Your task to perform on an android device: Do I have any events this weekend? Image 0: 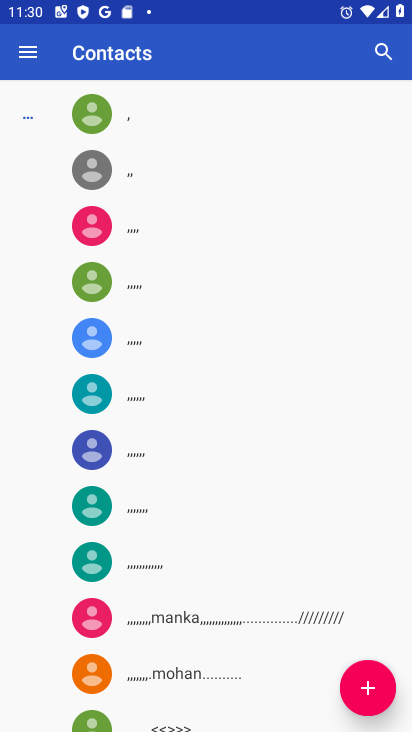
Step 0: press home button
Your task to perform on an android device: Do I have any events this weekend? Image 1: 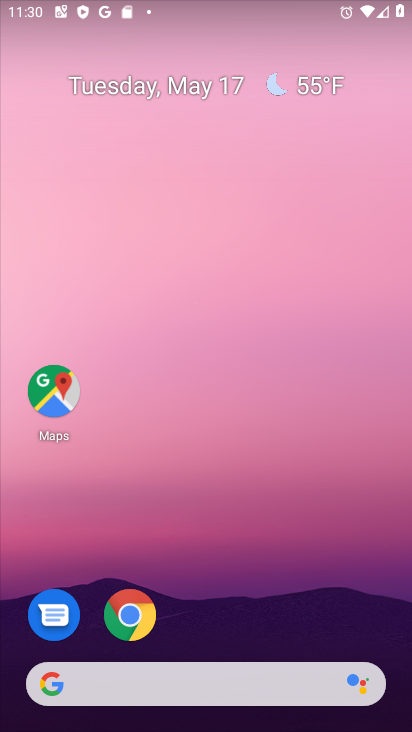
Step 1: drag from (287, 430) to (334, 0)
Your task to perform on an android device: Do I have any events this weekend? Image 2: 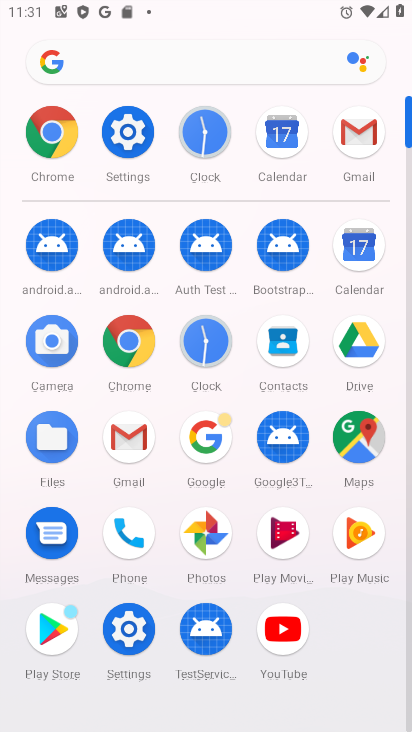
Step 2: click (366, 237)
Your task to perform on an android device: Do I have any events this weekend? Image 3: 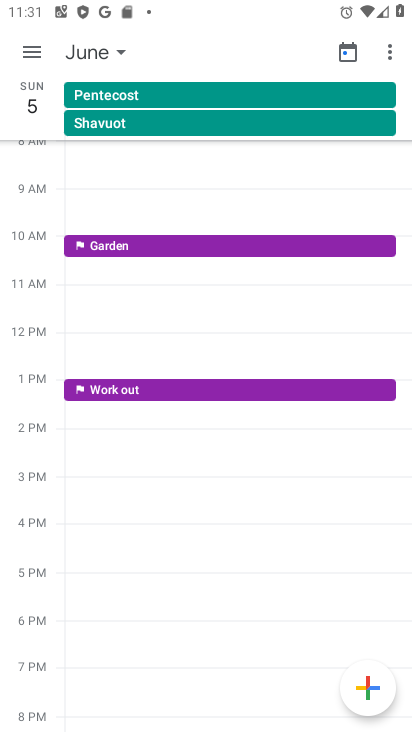
Step 3: click (69, 47)
Your task to perform on an android device: Do I have any events this weekend? Image 4: 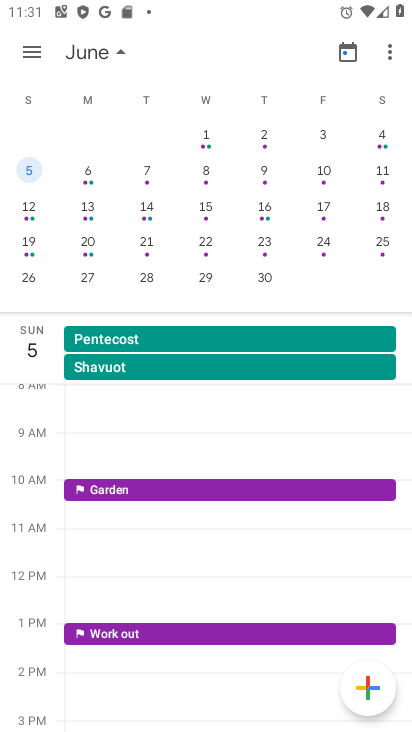
Step 4: click (14, 252)
Your task to perform on an android device: Do I have any events this weekend? Image 5: 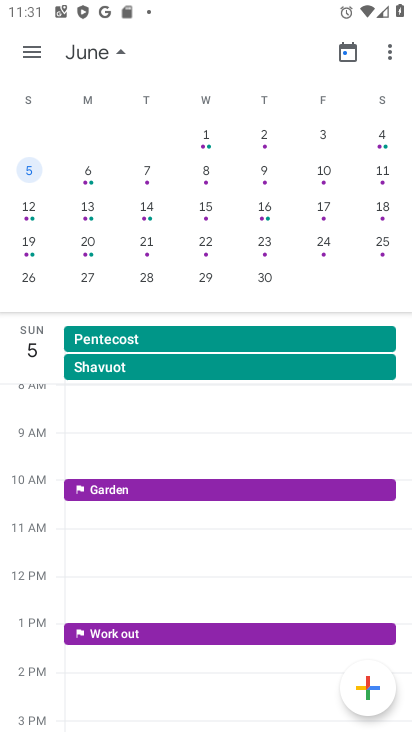
Step 5: drag from (89, 224) to (392, 217)
Your task to perform on an android device: Do I have any events this weekend? Image 6: 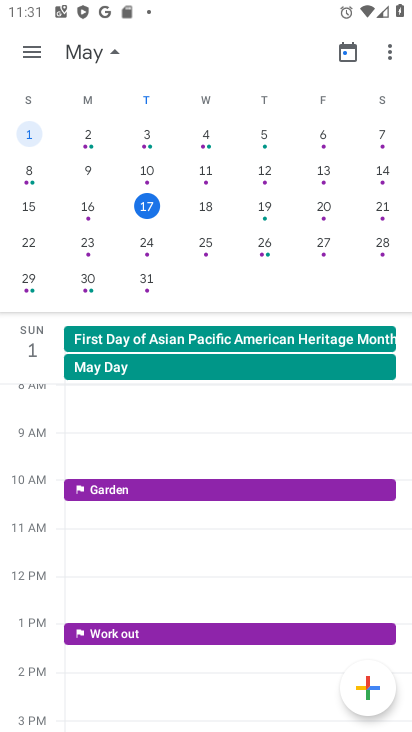
Step 6: click (145, 198)
Your task to perform on an android device: Do I have any events this weekend? Image 7: 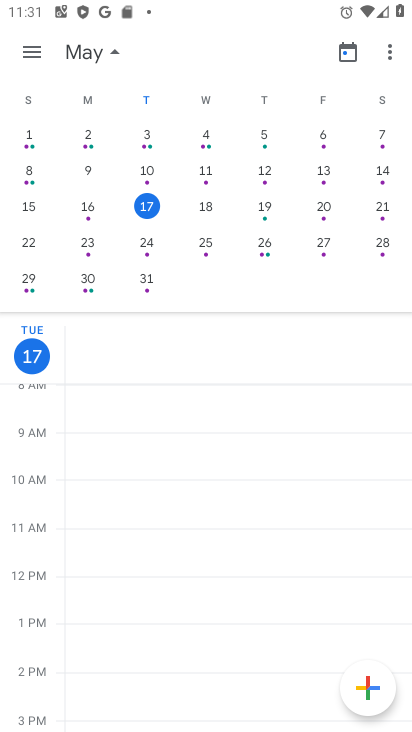
Step 7: click (19, 40)
Your task to perform on an android device: Do I have any events this weekend? Image 8: 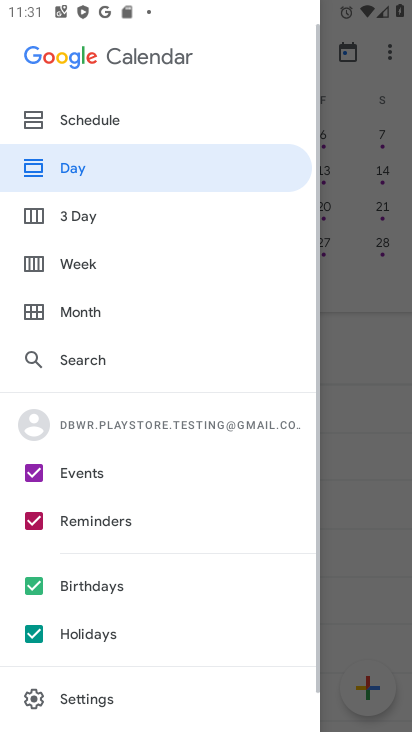
Step 8: drag from (92, 215) to (67, 260)
Your task to perform on an android device: Do I have any events this weekend? Image 9: 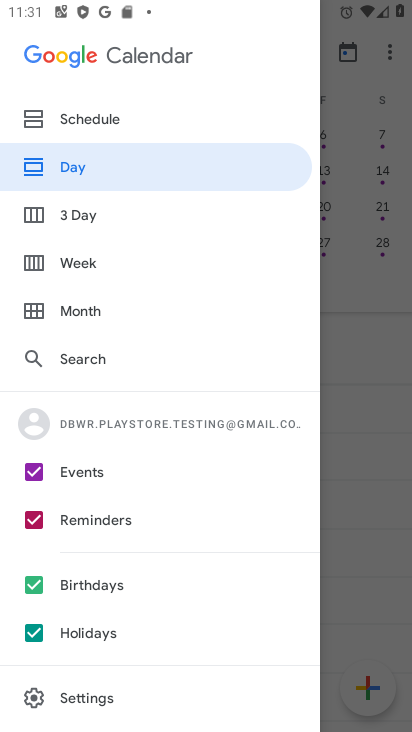
Step 9: click (75, 261)
Your task to perform on an android device: Do I have any events this weekend? Image 10: 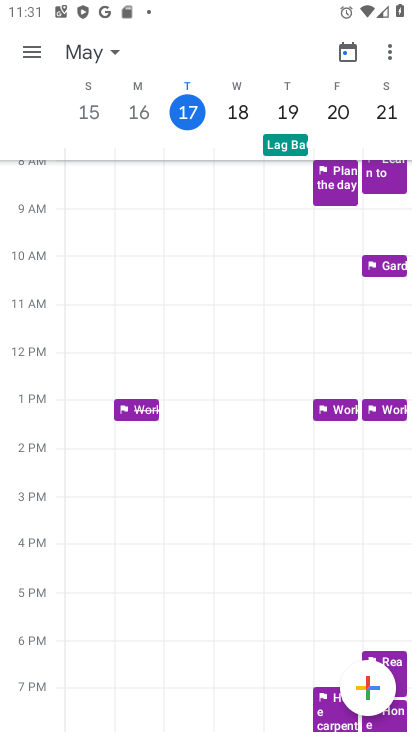
Step 10: click (43, 51)
Your task to perform on an android device: Do I have any events this weekend? Image 11: 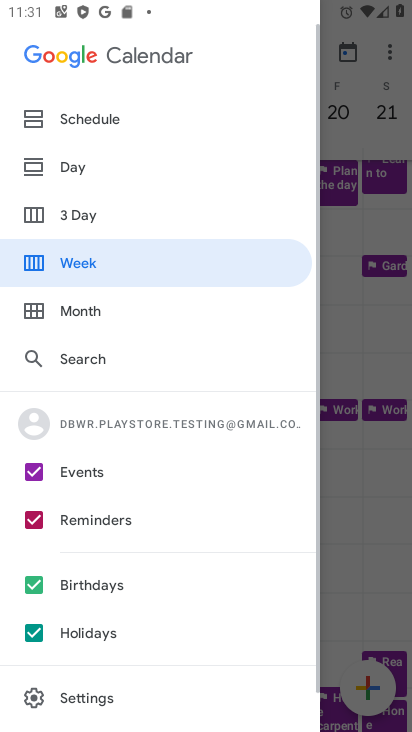
Step 11: click (106, 206)
Your task to perform on an android device: Do I have any events this weekend? Image 12: 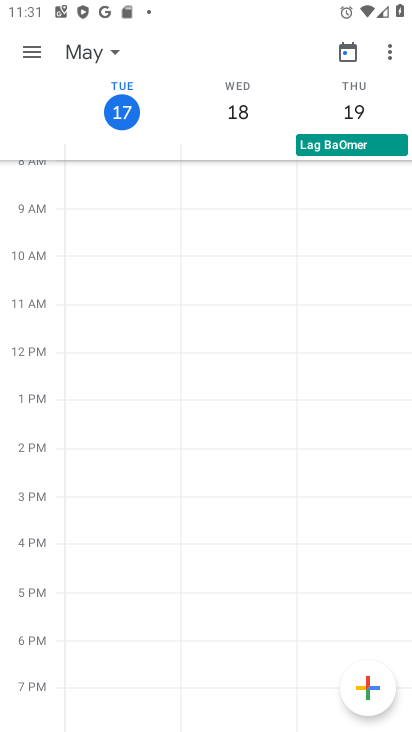
Step 12: task complete